Your task to perform on an android device: Go to display settings Image 0: 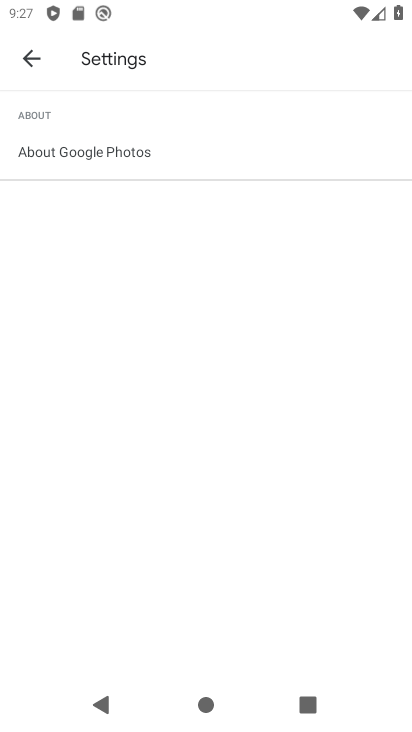
Step 0: press home button
Your task to perform on an android device: Go to display settings Image 1: 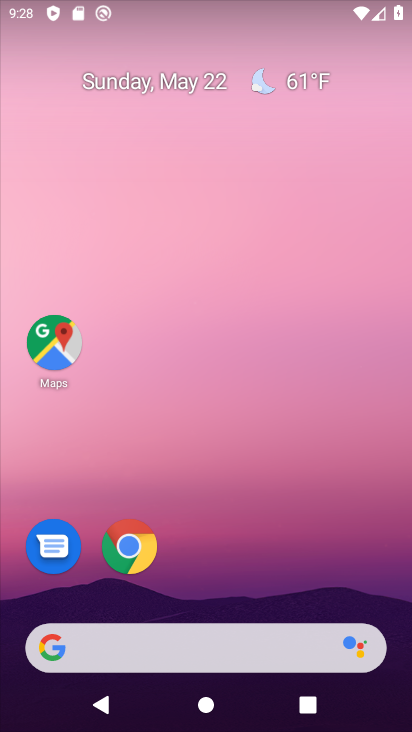
Step 1: drag from (226, 640) to (239, 192)
Your task to perform on an android device: Go to display settings Image 2: 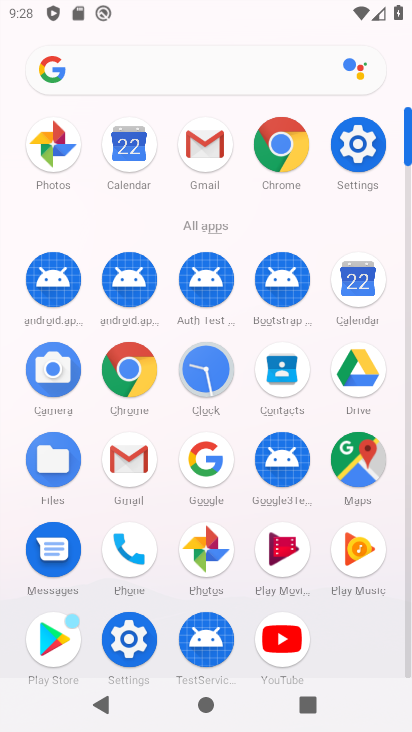
Step 2: click (344, 142)
Your task to perform on an android device: Go to display settings Image 3: 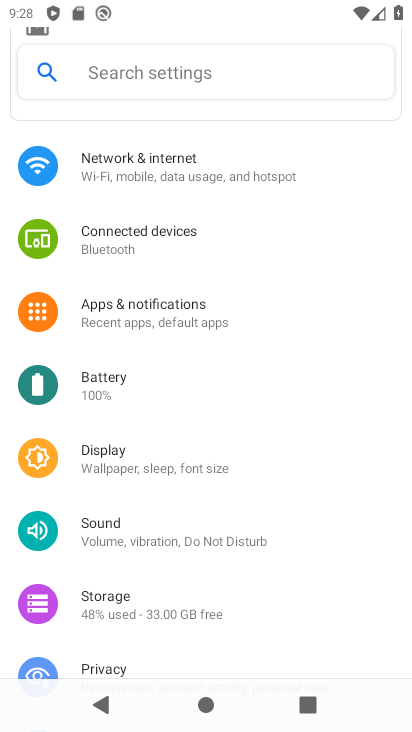
Step 3: click (138, 453)
Your task to perform on an android device: Go to display settings Image 4: 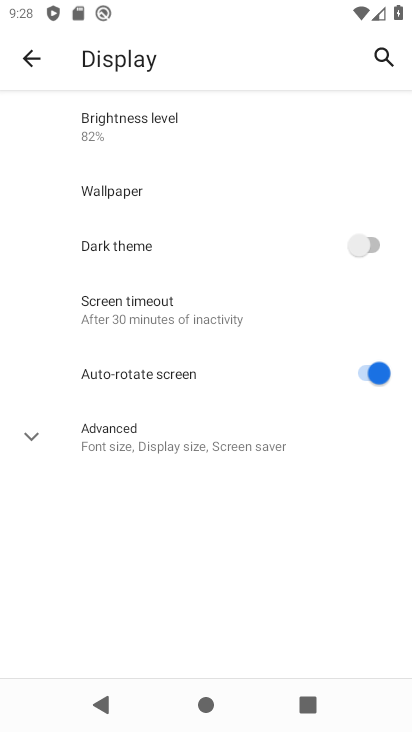
Step 4: task complete